Your task to perform on an android device: see sites visited before in the chrome app Image 0: 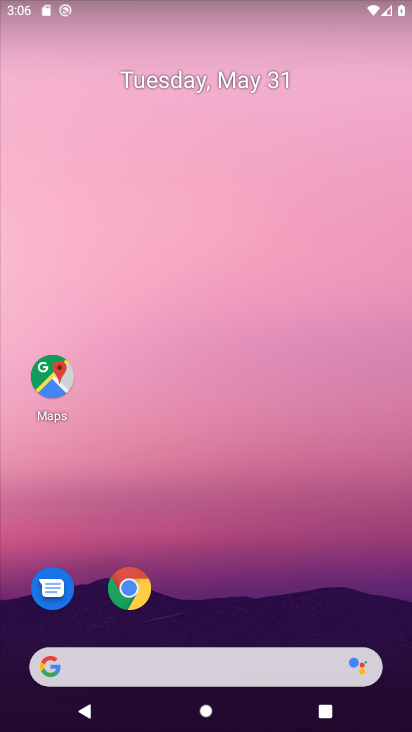
Step 0: drag from (232, 644) to (208, 1)
Your task to perform on an android device: see sites visited before in the chrome app Image 1: 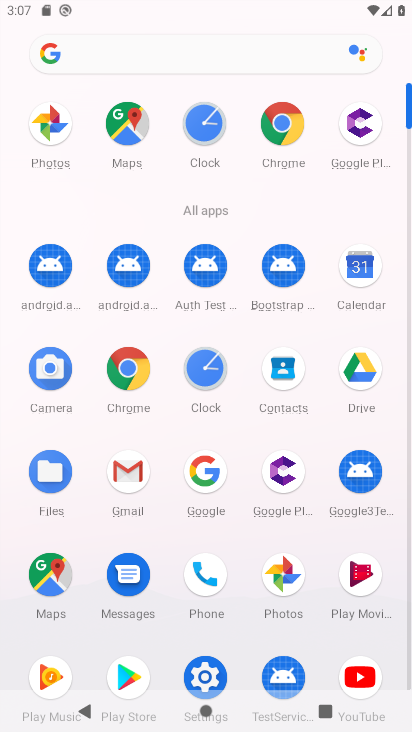
Step 1: click (276, 147)
Your task to perform on an android device: see sites visited before in the chrome app Image 2: 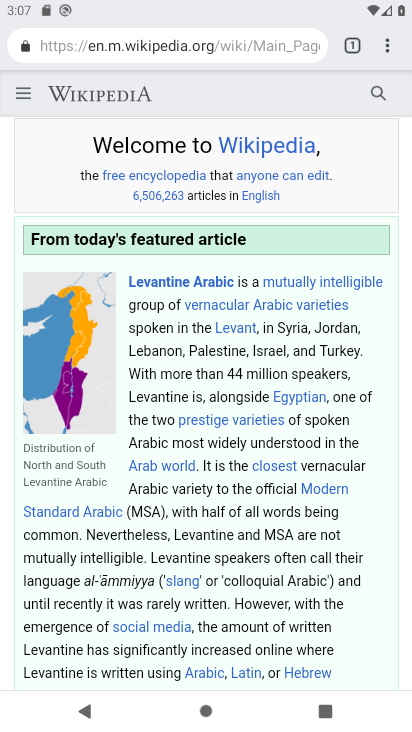
Step 2: click (387, 51)
Your task to perform on an android device: see sites visited before in the chrome app Image 3: 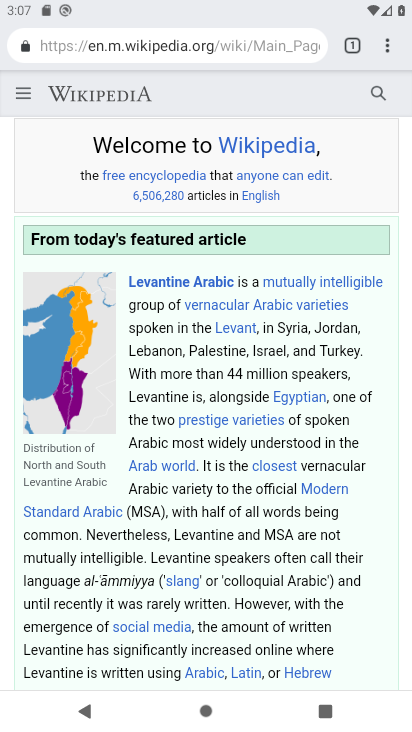
Step 3: click (390, 56)
Your task to perform on an android device: see sites visited before in the chrome app Image 4: 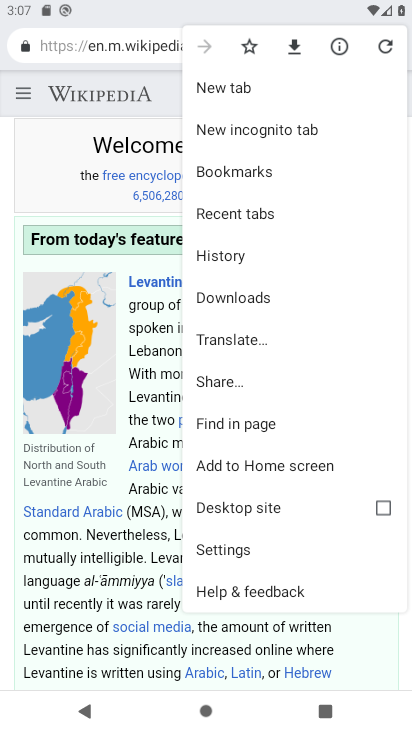
Step 4: click (233, 256)
Your task to perform on an android device: see sites visited before in the chrome app Image 5: 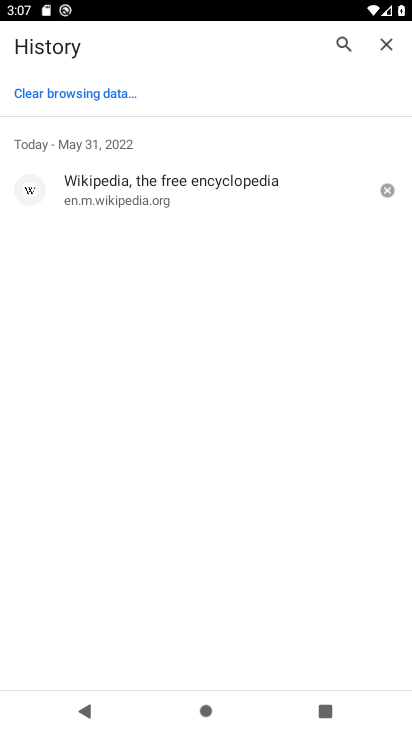
Step 5: task complete